Your task to perform on an android device: turn off translation in the chrome app Image 0: 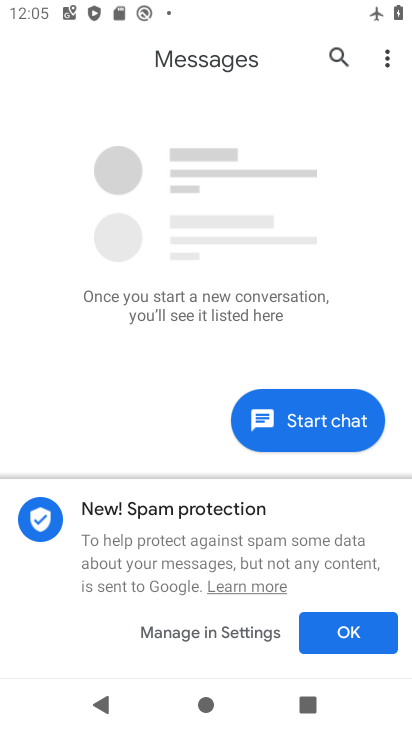
Step 0: press home button
Your task to perform on an android device: turn off translation in the chrome app Image 1: 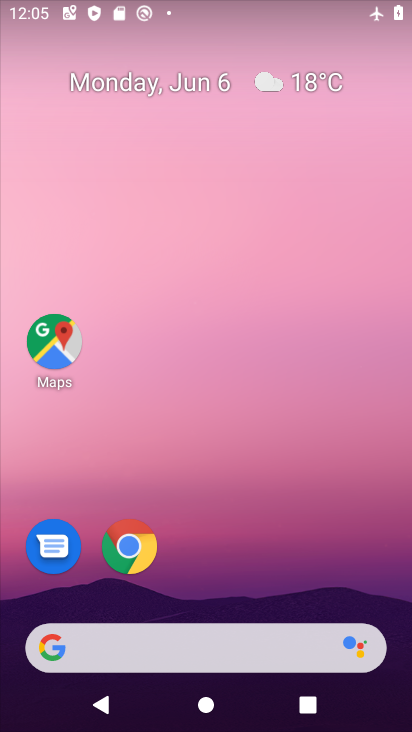
Step 1: click (139, 539)
Your task to perform on an android device: turn off translation in the chrome app Image 2: 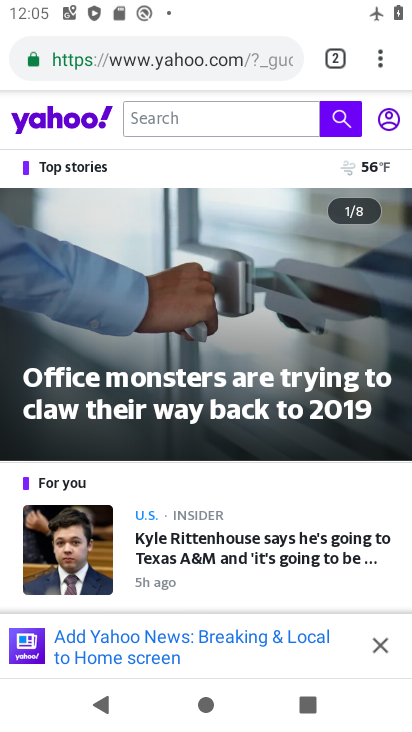
Step 2: drag from (375, 60) to (178, 564)
Your task to perform on an android device: turn off translation in the chrome app Image 3: 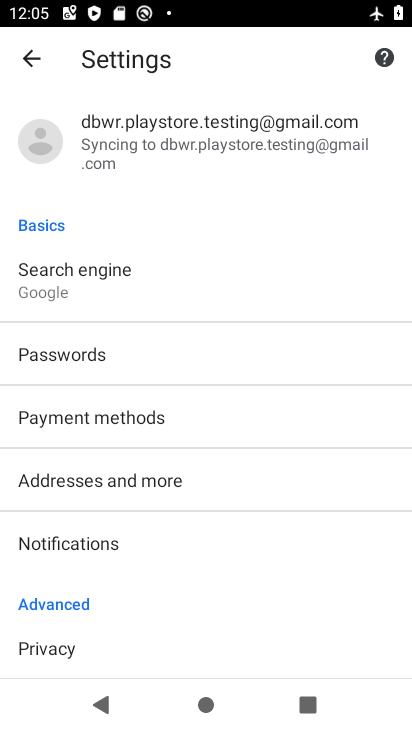
Step 3: drag from (200, 599) to (197, 185)
Your task to perform on an android device: turn off translation in the chrome app Image 4: 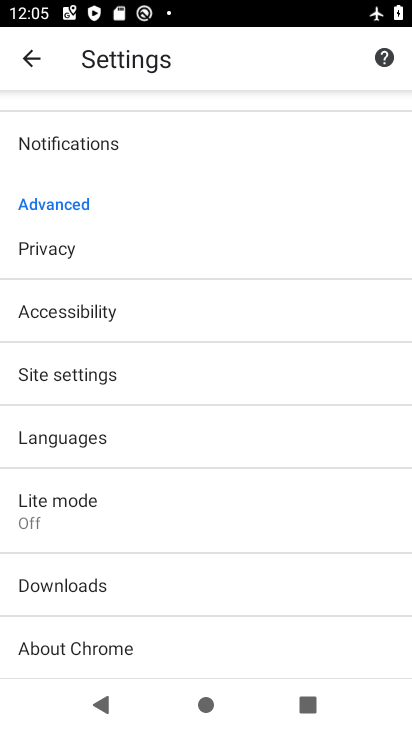
Step 4: click (108, 433)
Your task to perform on an android device: turn off translation in the chrome app Image 5: 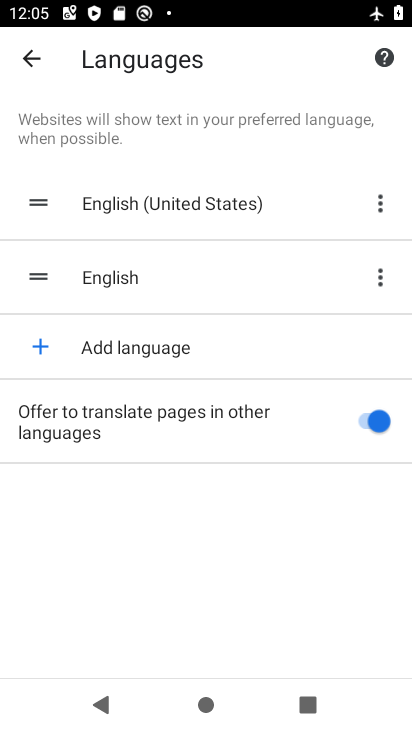
Step 5: click (356, 426)
Your task to perform on an android device: turn off translation in the chrome app Image 6: 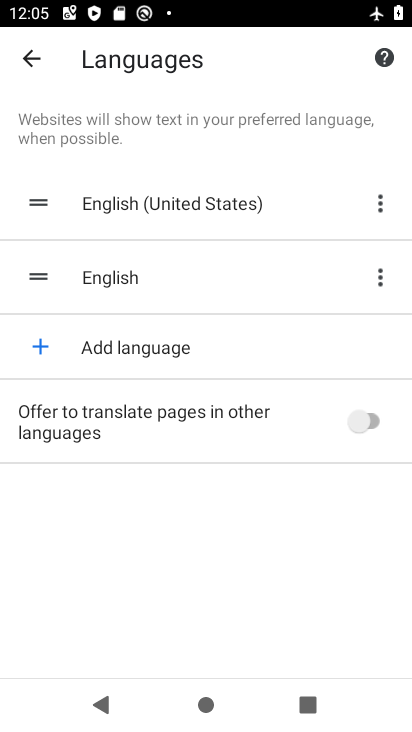
Step 6: task complete